Your task to perform on an android device: change the clock style Image 0: 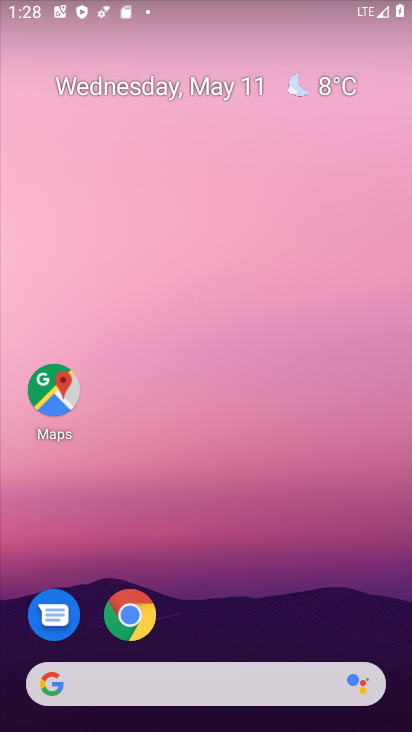
Step 0: drag from (271, 433) to (292, 22)
Your task to perform on an android device: change the clock style Image 1: 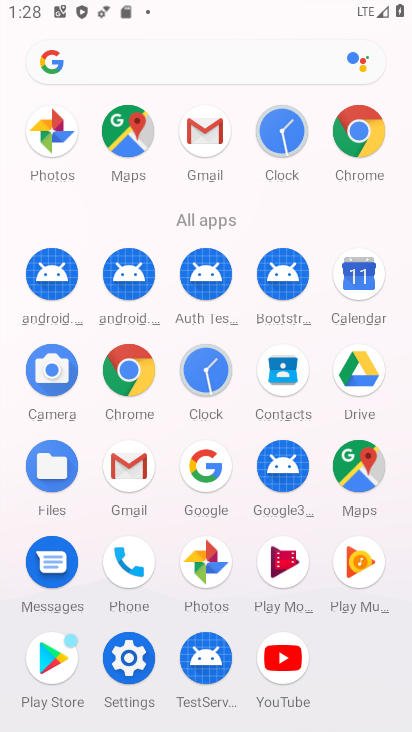
Step 1: click (198, 377)
Your task to perform on an android device: change the clock style Image 2: 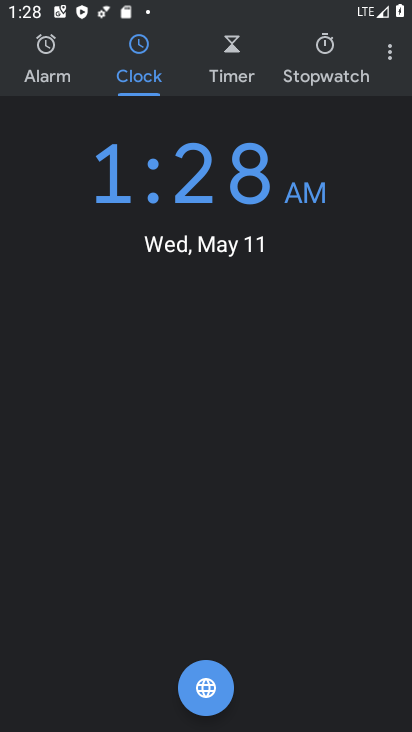
Step 2: click (388, 56)
Your task to perform on an android device: change the clock style Image 3: 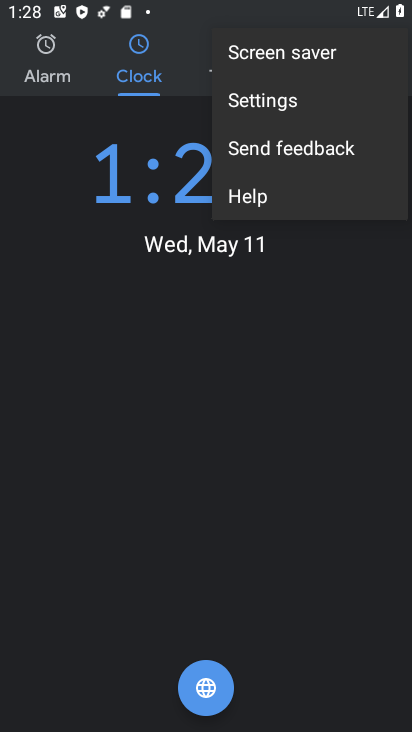
Step 3: click (295, 106)
Your task to perform on an android device: change the clock style Image 4: 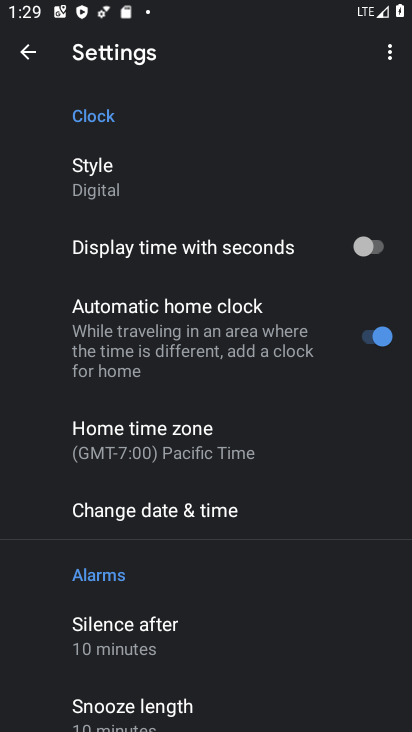
Step 4: click (107, 179)
Your task to perform on an android device: change the clock style Image 5: 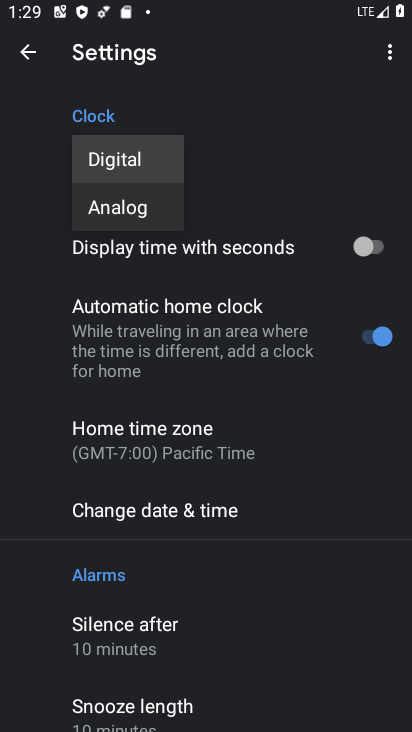
Step 5: click (137, 211)
Your task to perform on an android device: change the clock style Image 6: 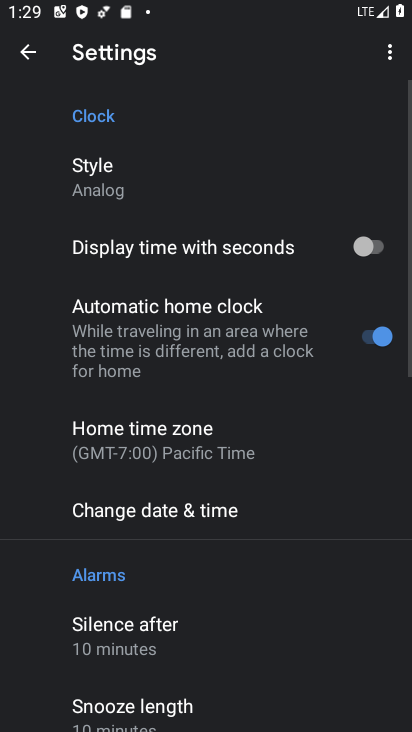
Step 6: task complete